Your task to perform on an android device: toggle pop-ups in chrome Image 0: 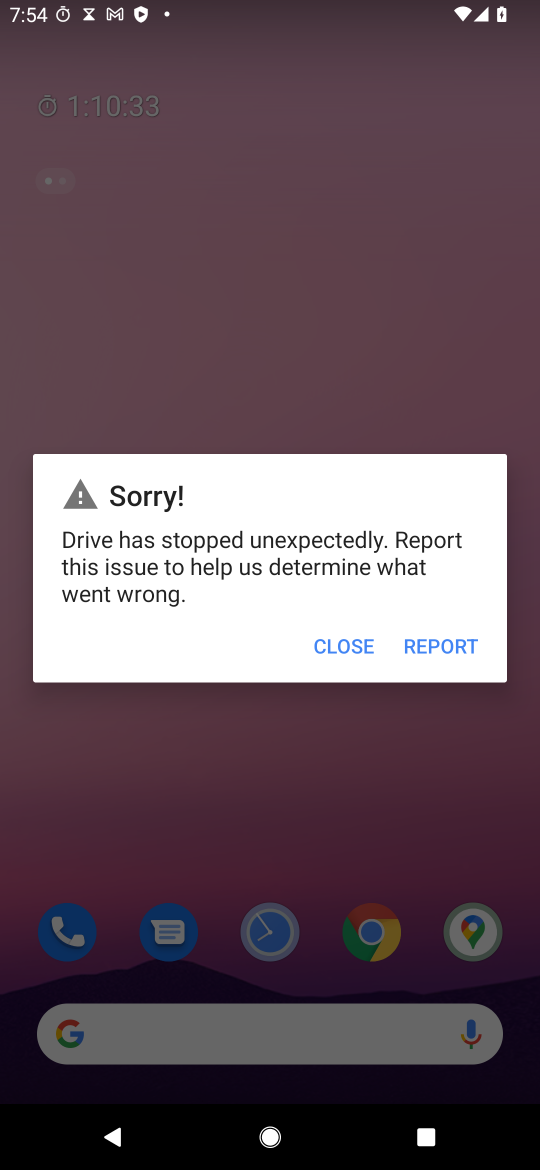
Step 0: press home button
Your task to perform on an android device: toggle pop-ups in chrome Image 1: 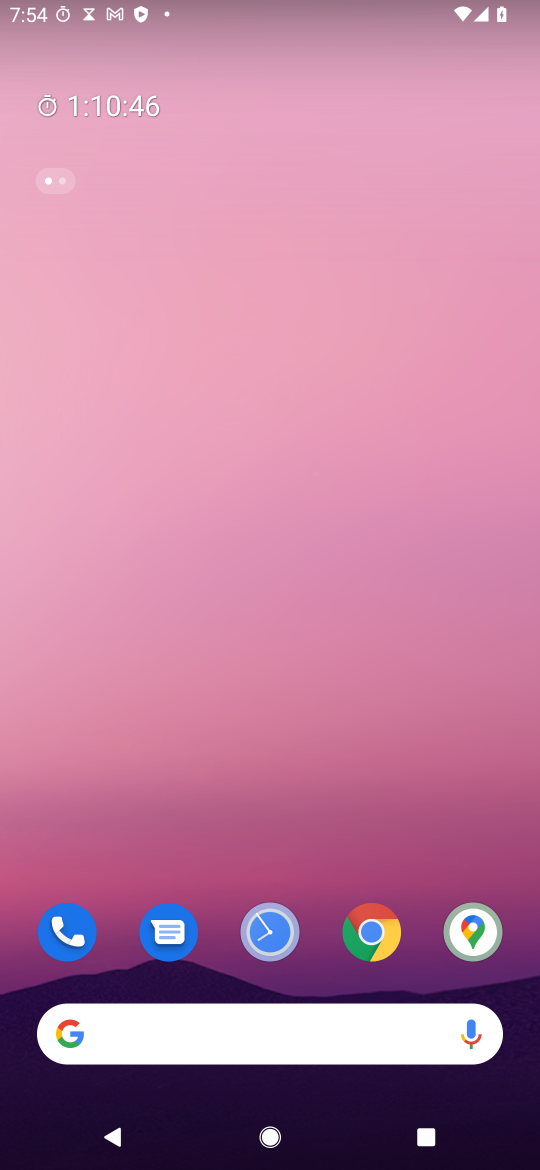
Step 1: drag from (366, 776) to (333, 336)
Your task to perform on an android device: toggle pop-ups in chrome Image 2: 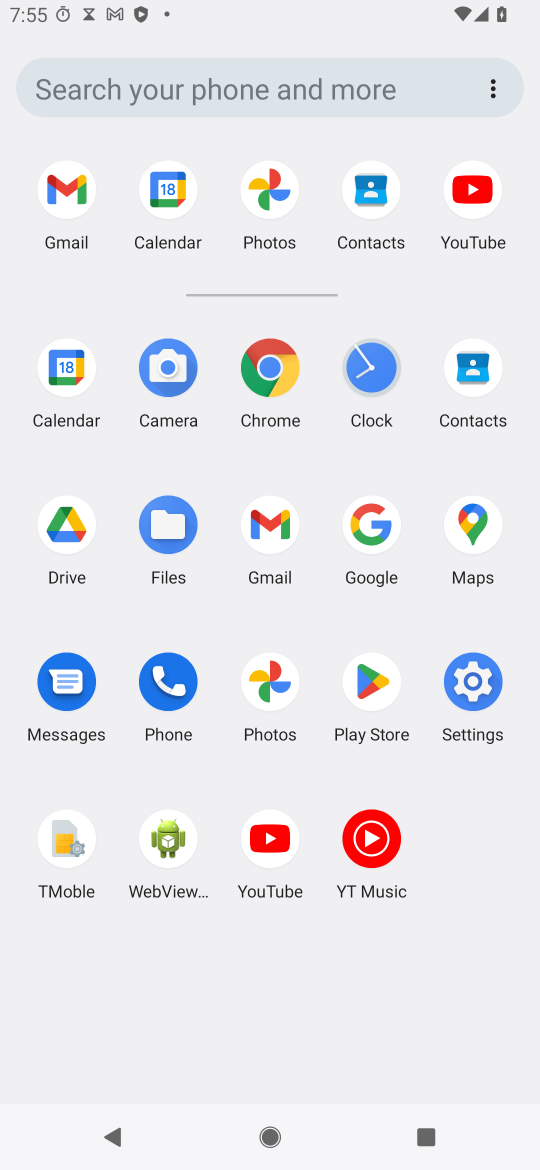
Step 2: click (262, 354)
Your task to perform on an android device: toggle pop-ups in chrome Image 3: 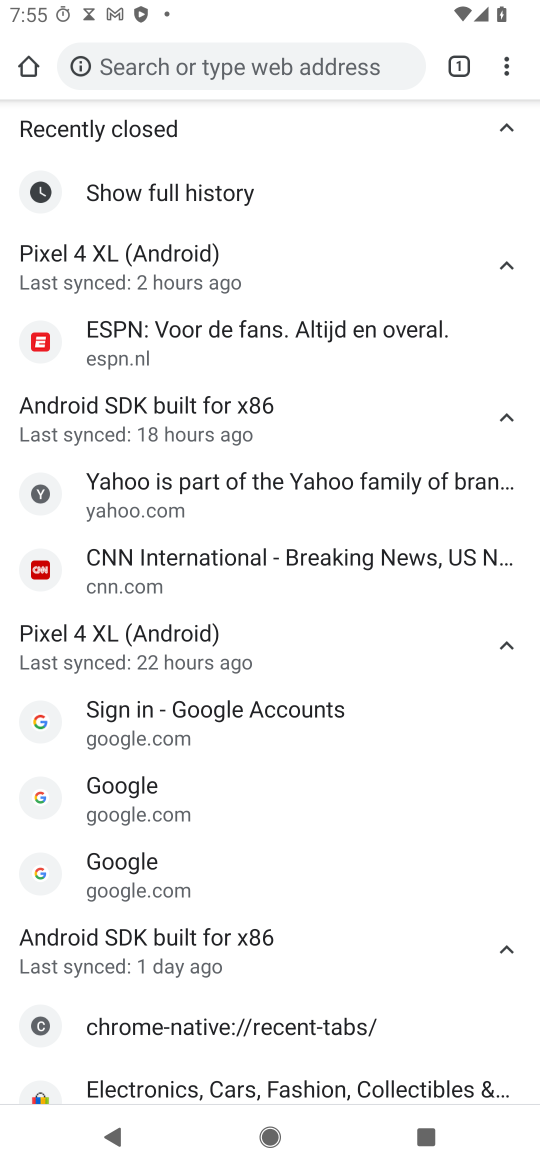
Step 3: drag from (511, 64) to (335, 648)
Your task to perform on an android device: toggle pop-ups in chrome Image 4: 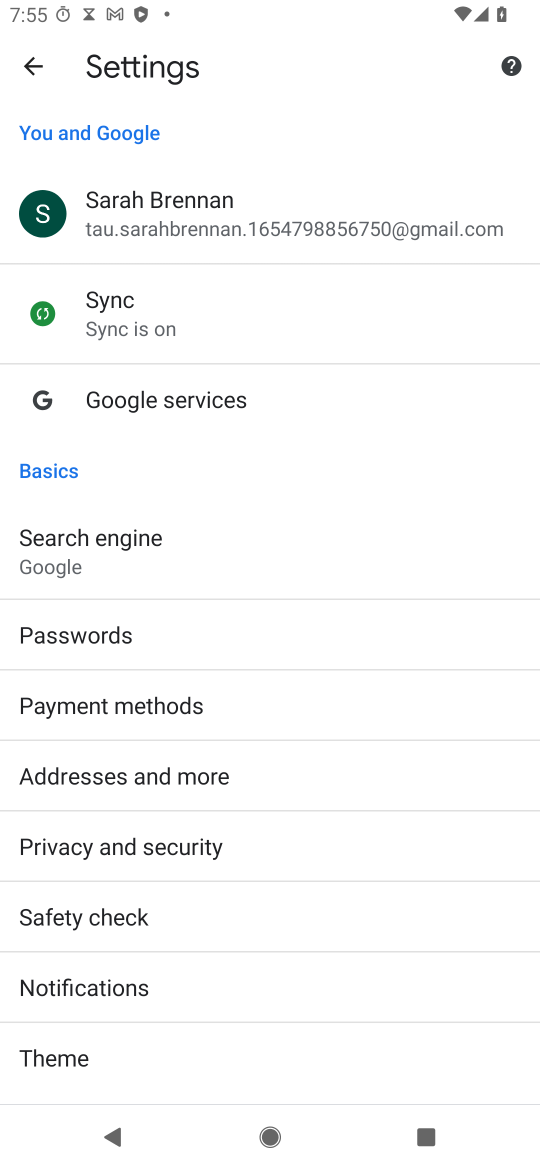
Step 4: drag from (310, 913) to (283, 537)
Your task to perform on an android device: toggle pop-ups in chrome Image 5: 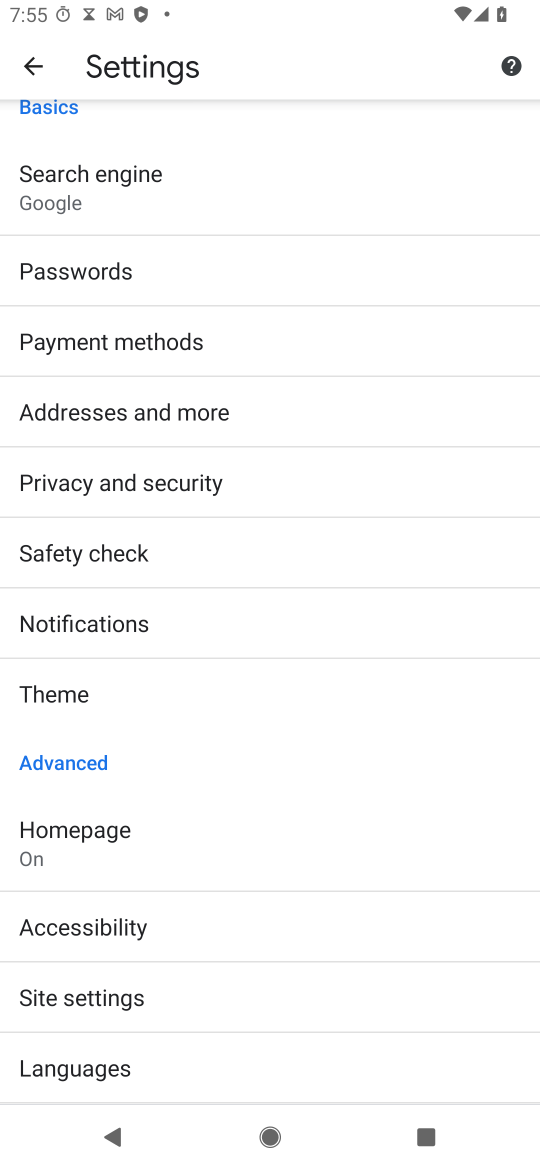
Step 5: click (90, 985)
Your task to perform on an android device: toggle pop-ups in chrome Image 6: 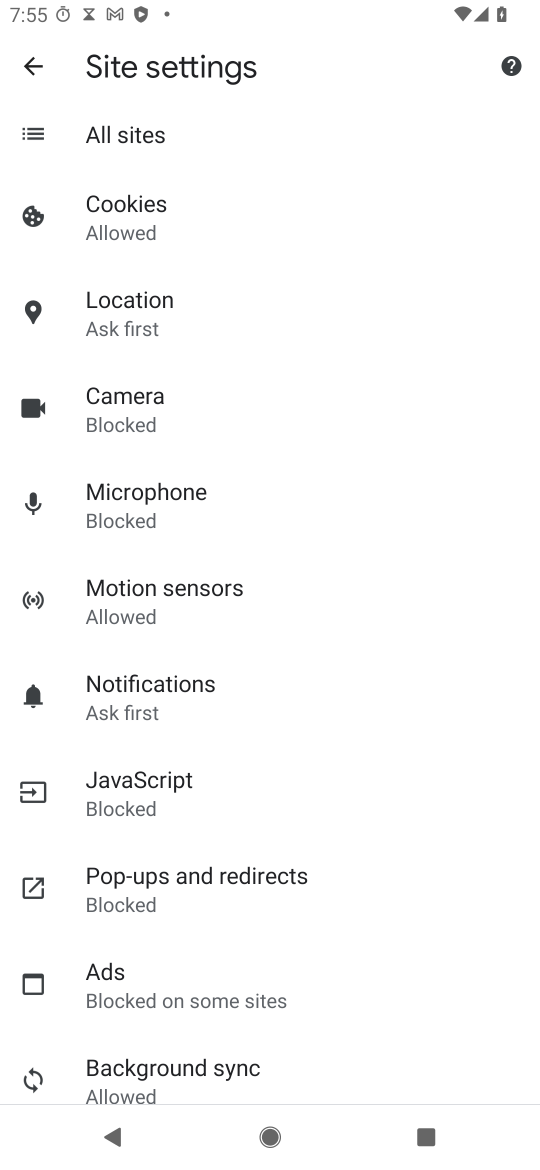
Step 6: click (193, 893)
Your task to perform on an android device: toggle pop-ups in chrome Image 7: 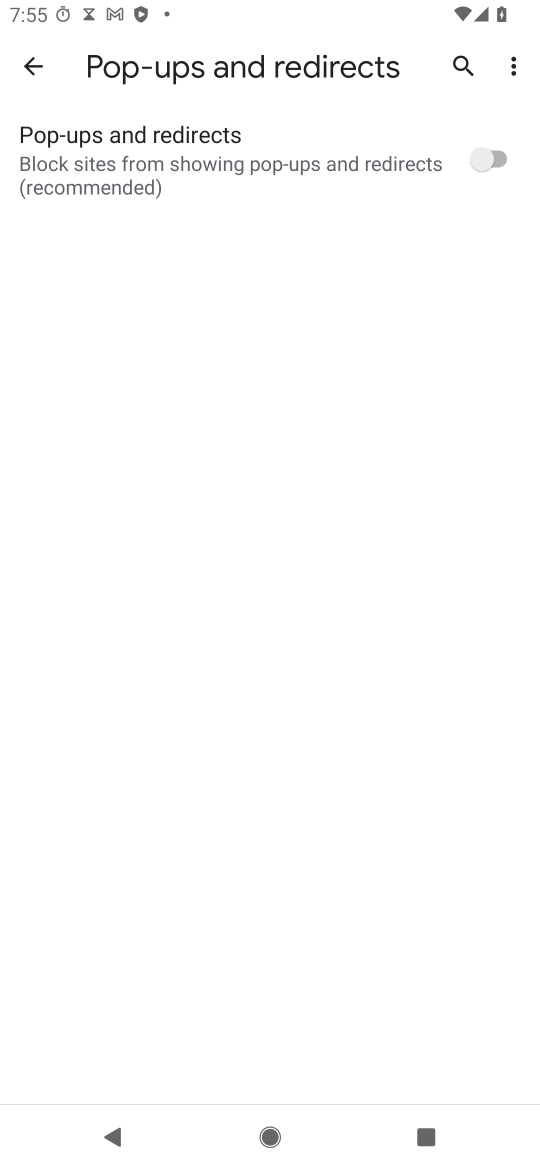
Step 7: click (349, 141)
Your task to perform on an android device: toggle pop-ups in chrome Image 8: 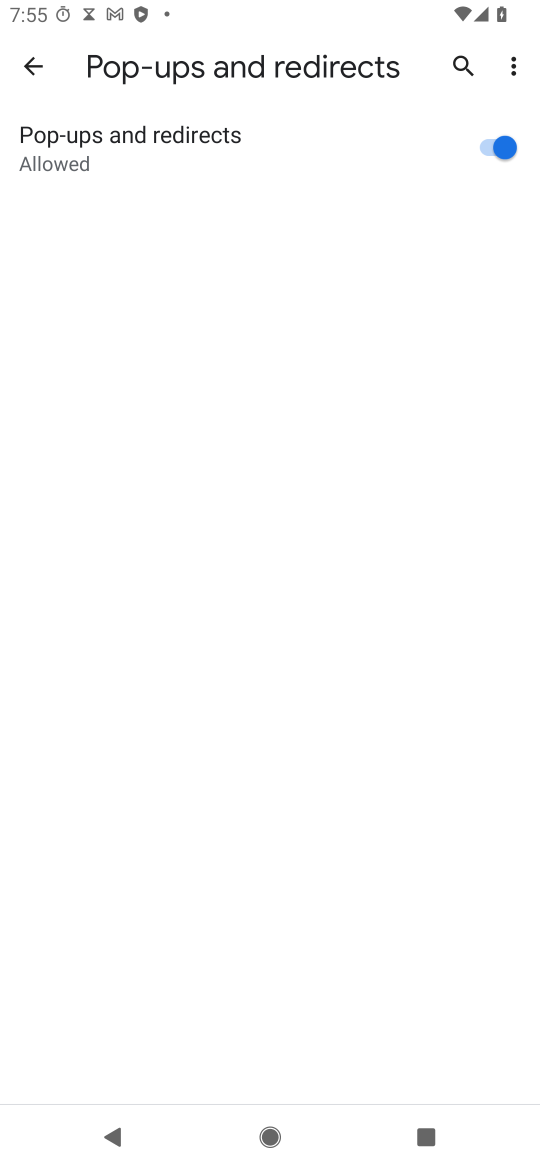
Step 8: task complete